Your task to perform on an android device: Open calendar and show me the third week of next month Image 0: 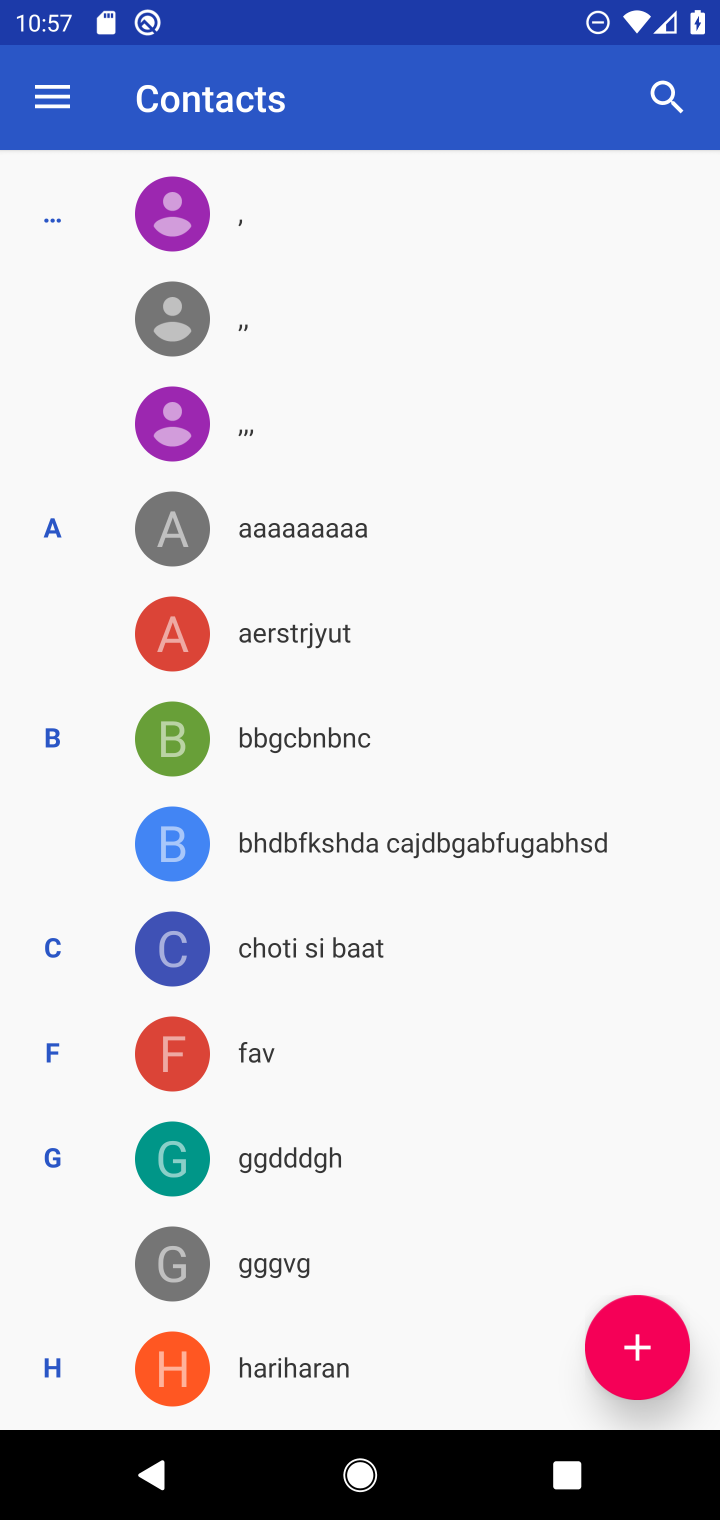
Step 0: press home button
Your task to perform on an android device: Open calendar and show me the third week of next month Image 1: 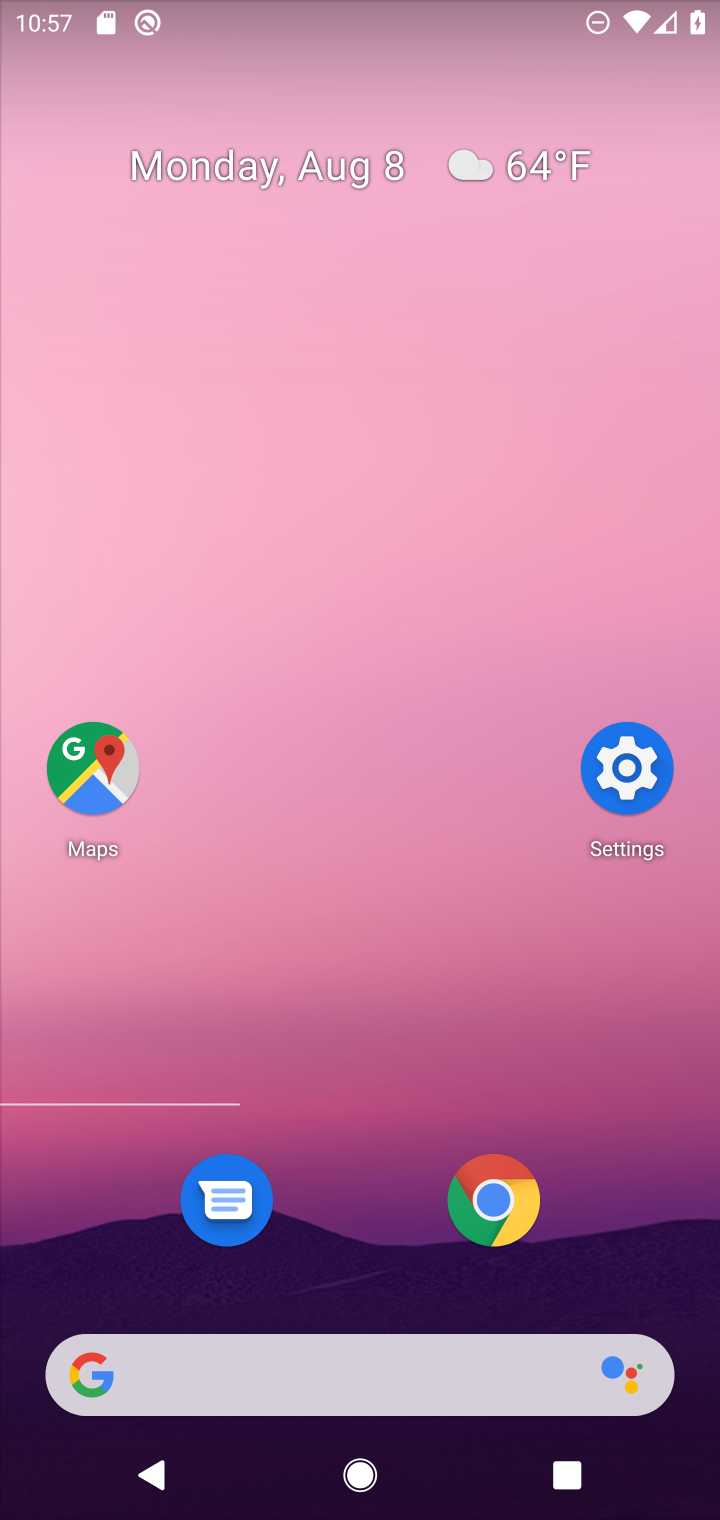
Step 1: drag from (232, 1247) to (382, 359)
Your task to perform on an android device: Open calendar and show me the third week of next month Image 2: 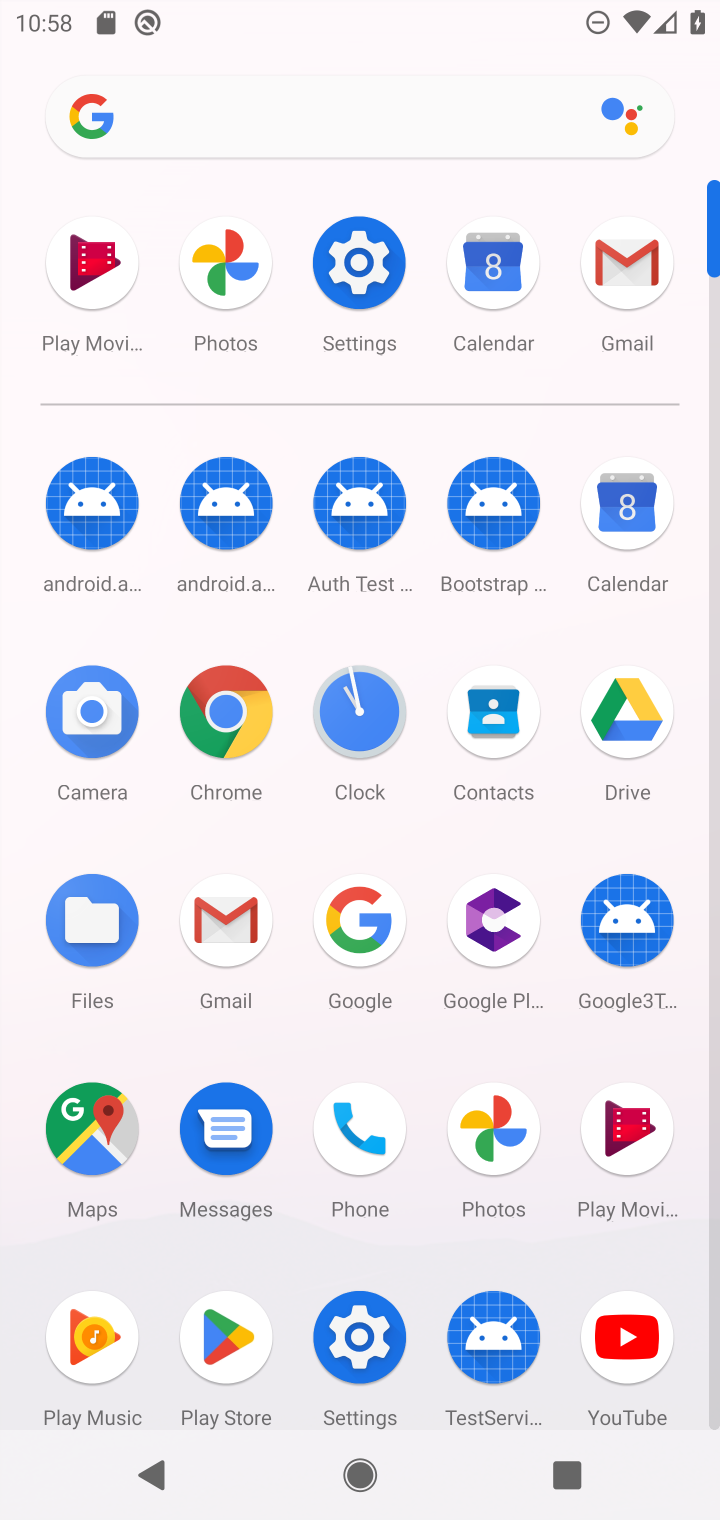
Step 2: click (615, 519)
Your task to perform on an android device: Open calendar and show me the third week of next month Image 3: 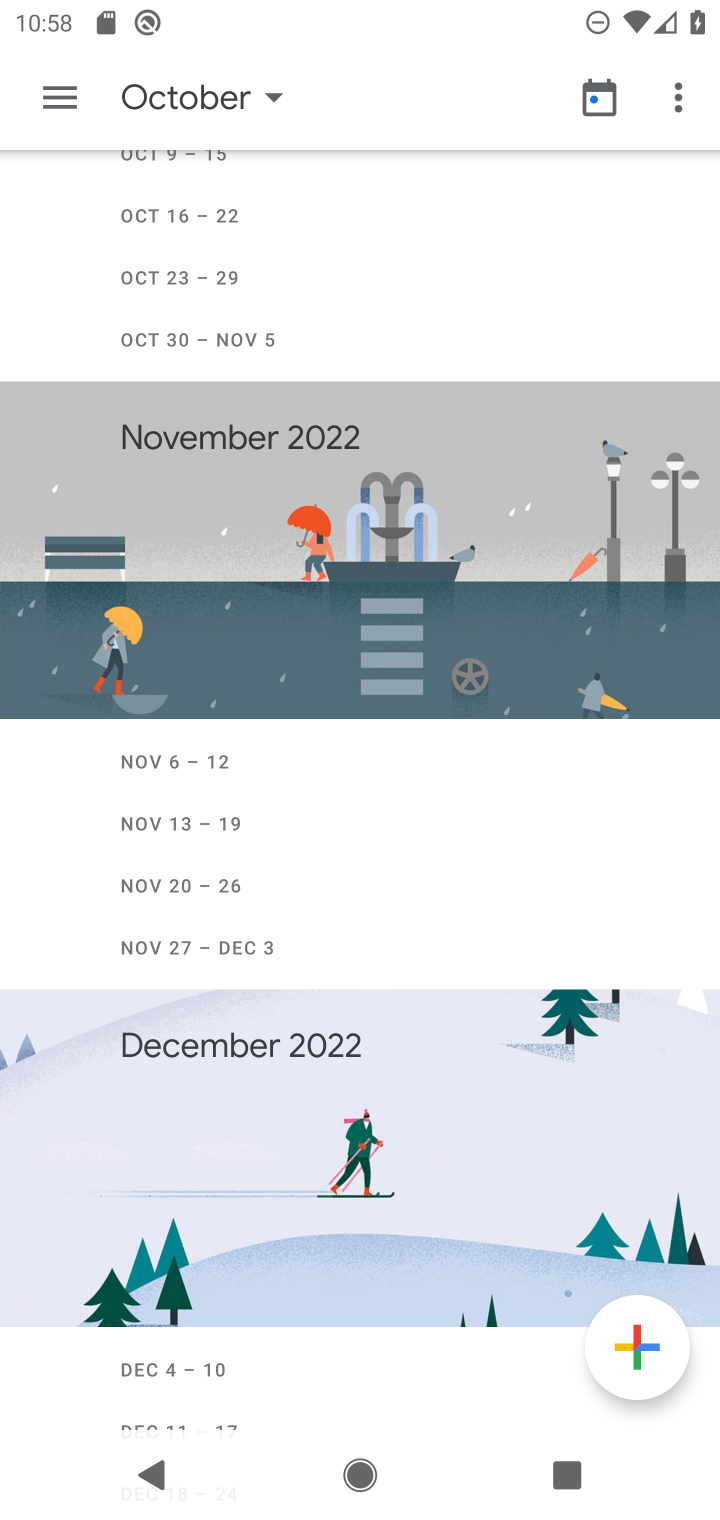
Step 3: drag from (425, 303) to (368, 1482)
Your task to perform on an android device: Open calendar and show me the third week of next month Image 4: 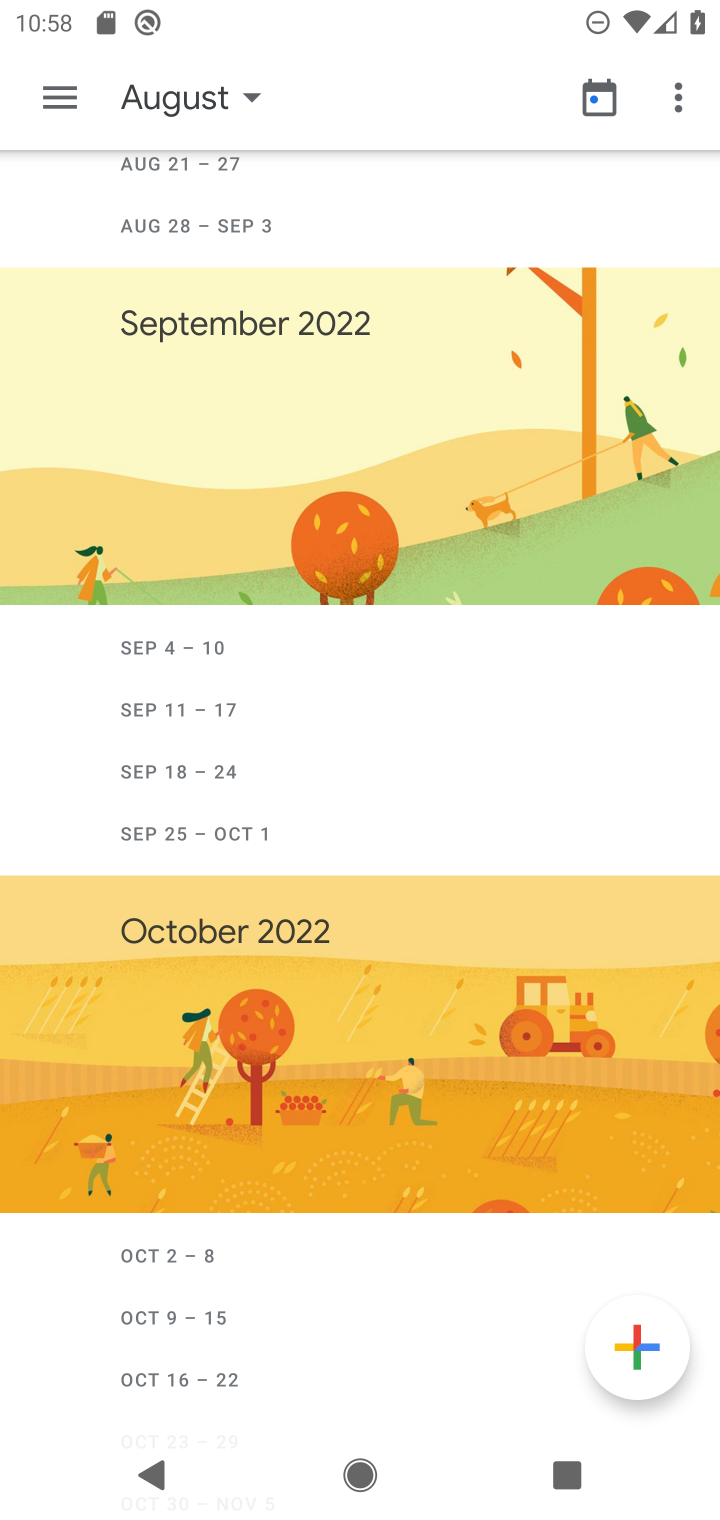
Step 4: drag from (286, 819) to (527, 317)
Your task to perform on an android device: Open calendar and show me the third week of next month Image 5: 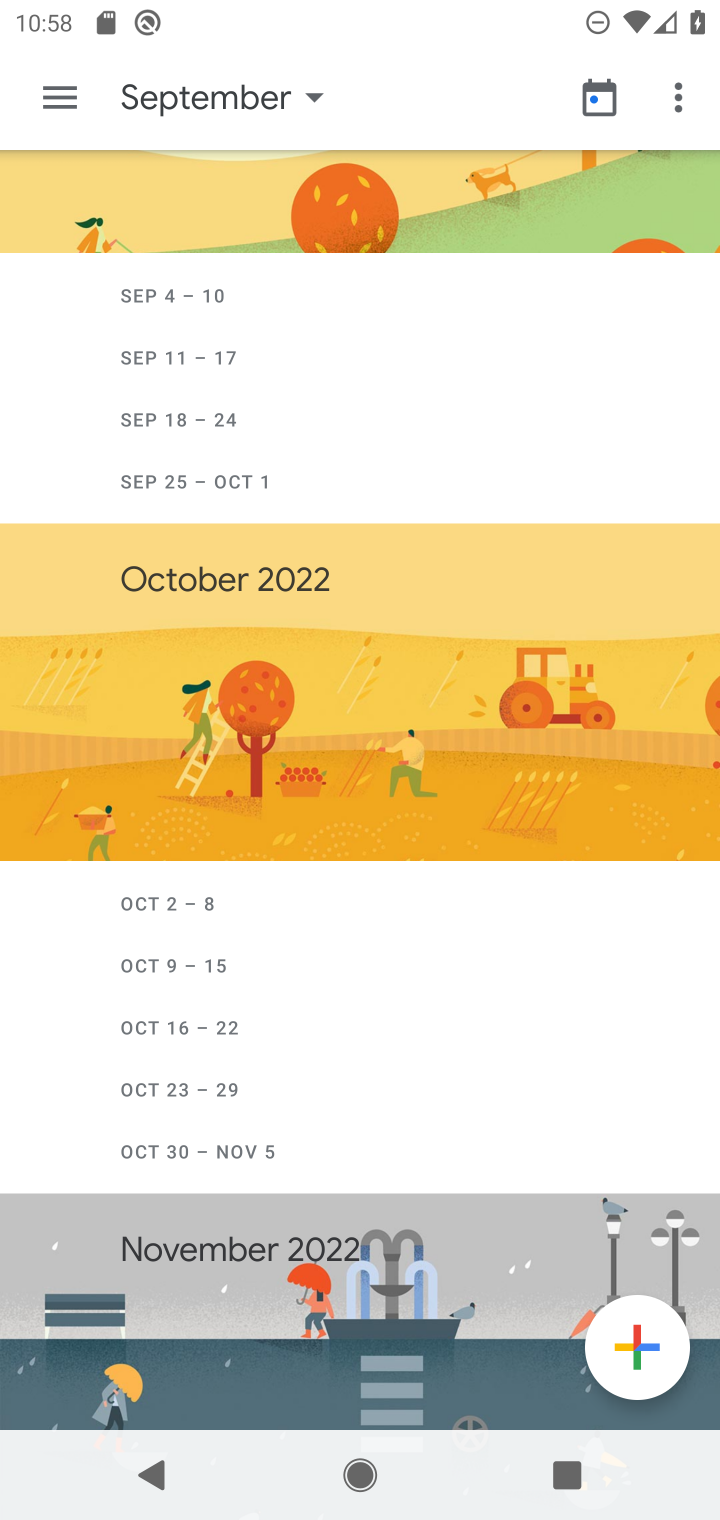
Step 5: click (233, 95)
Your task to perform on an android device: Open calendar and show me the third week of next month Image 6: 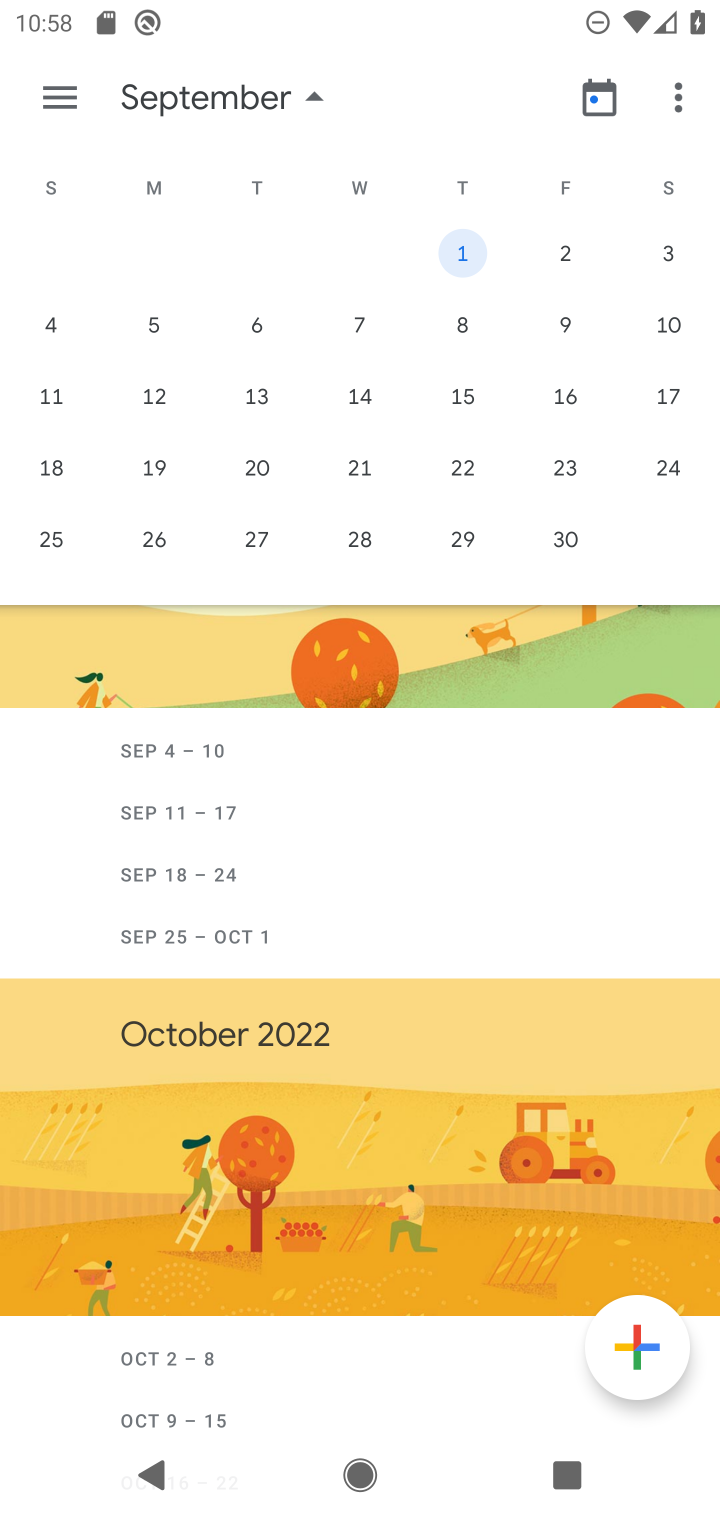
Step 6: click (54, 397)
Your task to perform on an android device: Open calendar and show me the third week of next month Image 7: 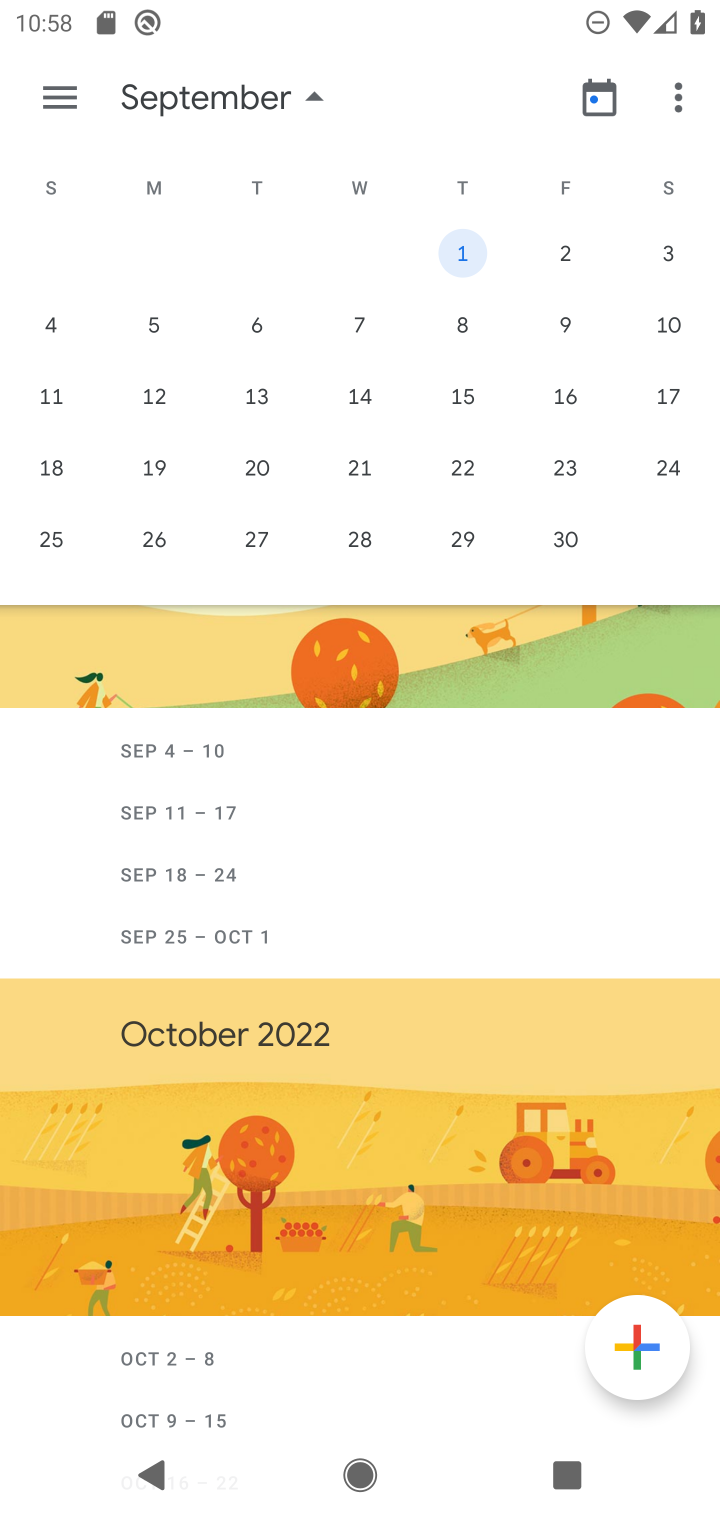
Step 7: click (54, 393)
Your task to perform on an android device: Open calendar and show me the third week of next month Image 8: 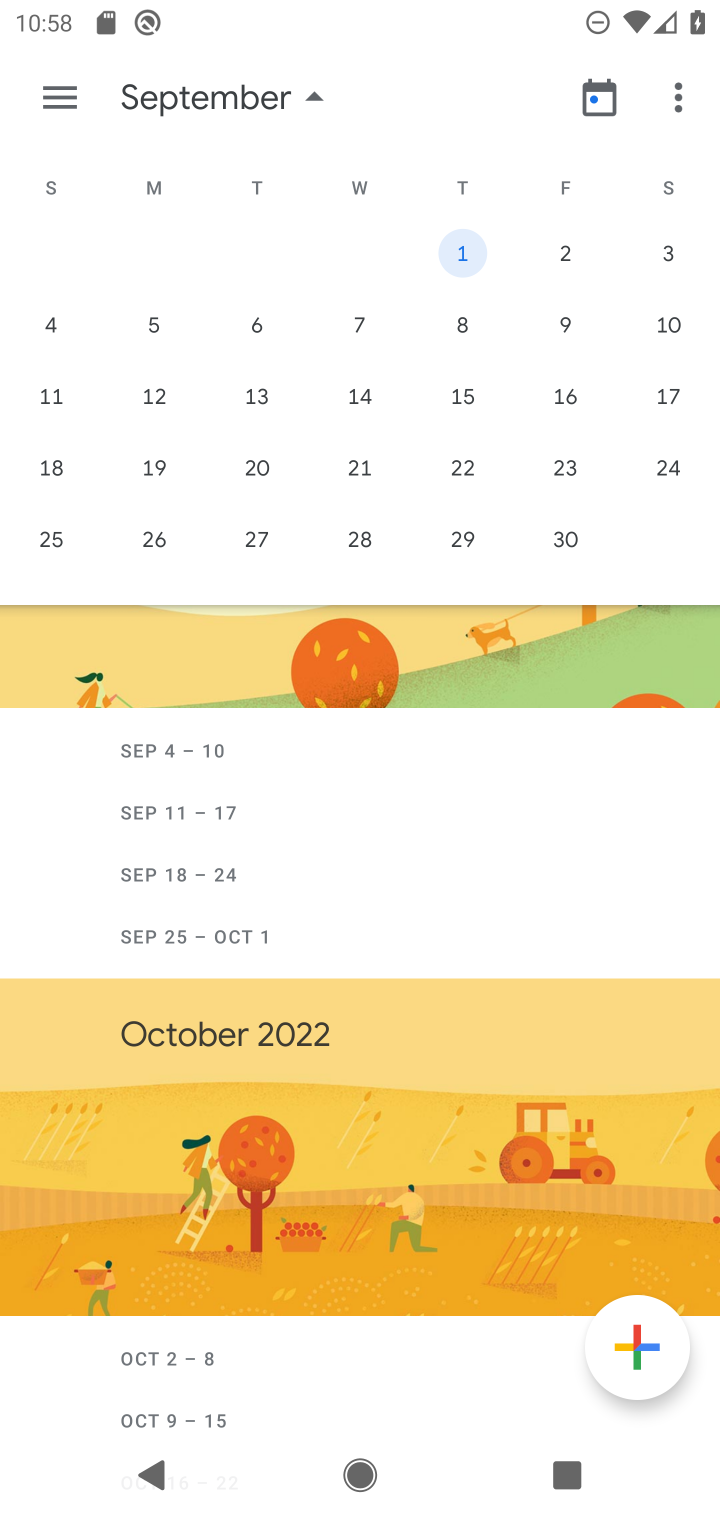
Step 8: click (56, 386)
Your task to perform on an android device: Open calendar and show me the third week of next month Image 9: 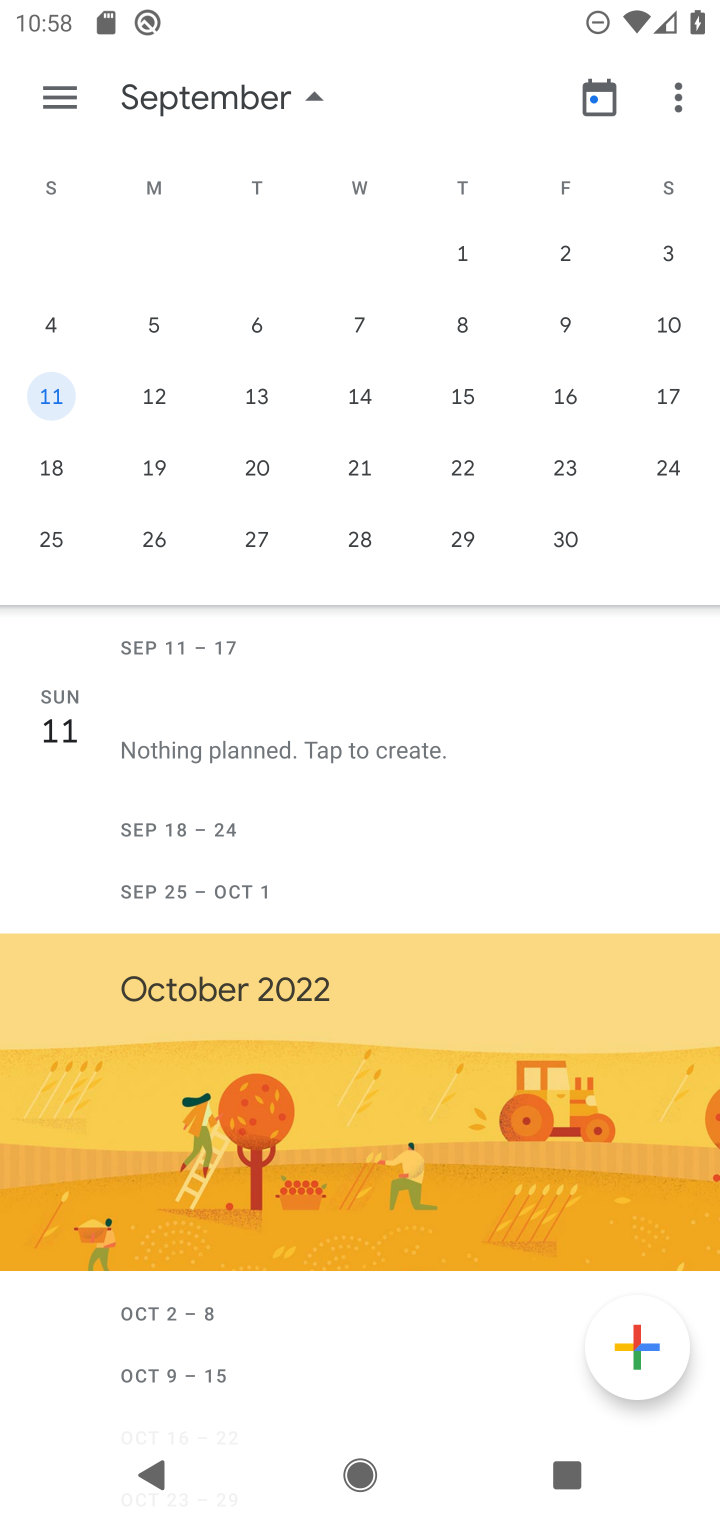
Step 9: click (58, 84)
Your task to perform on an android device: Open calendar and show me the third week of next month Image 10: 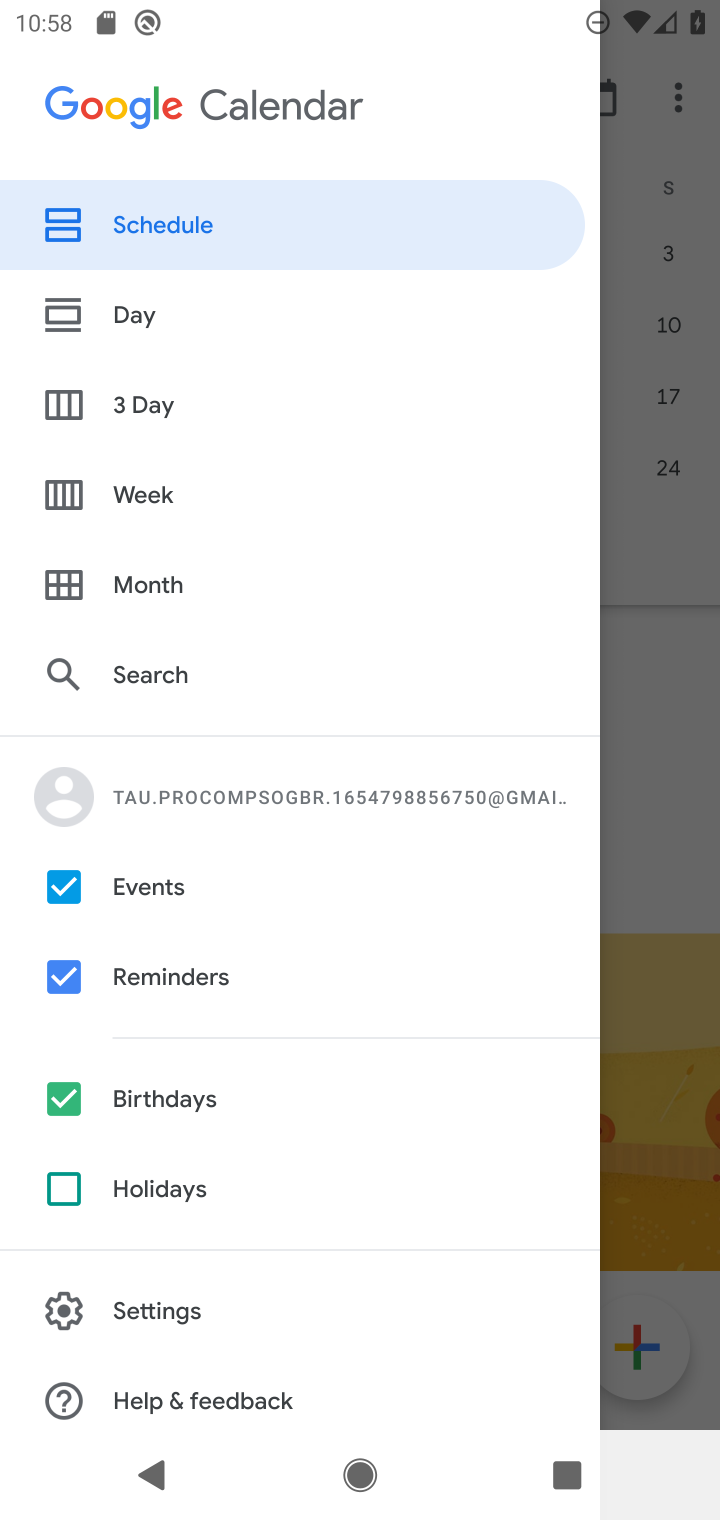
Step 10: click (146, 496)
Your task to perform on an android device: Open calendar and show me the third week of next month Image 11: 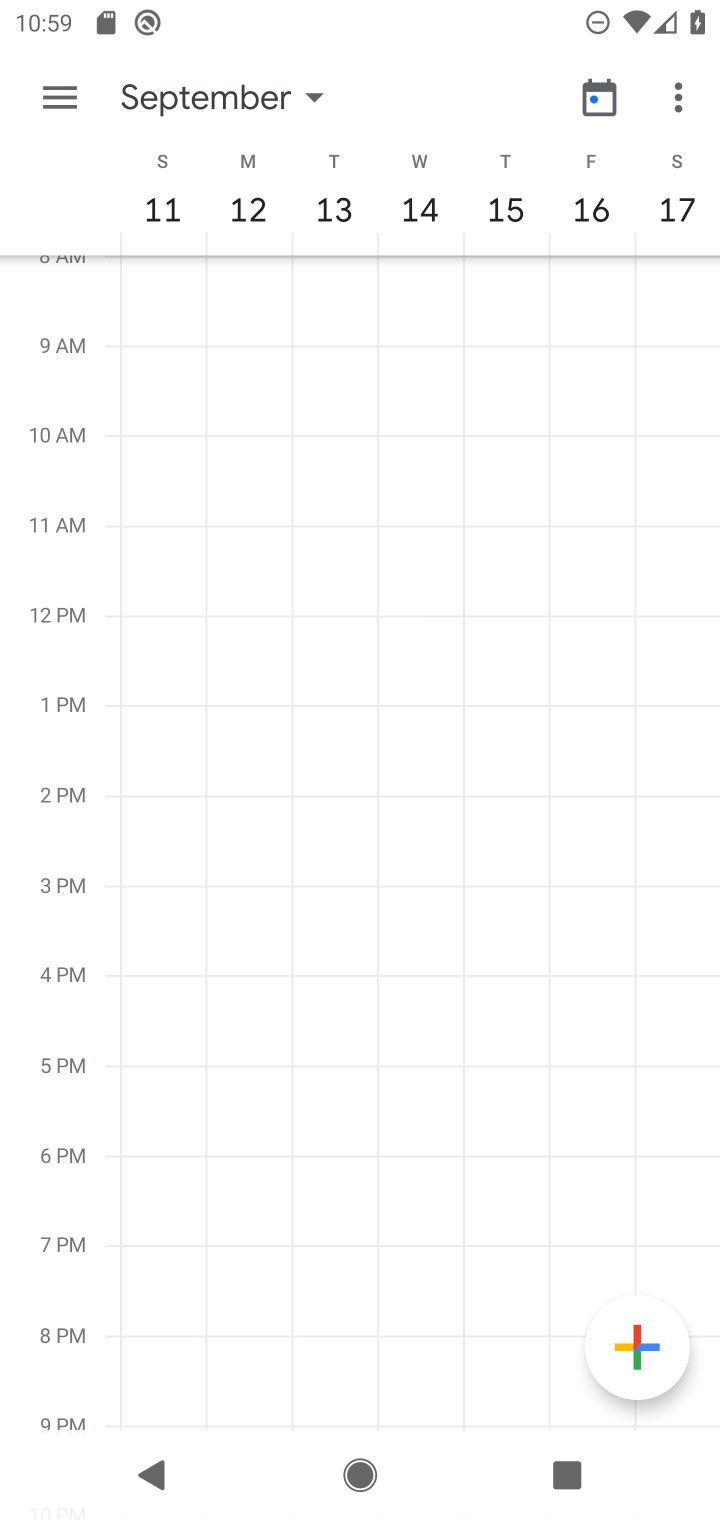
Step 11: task complete